Your task to perform on an android device: uninstall "Skype" Image 0: 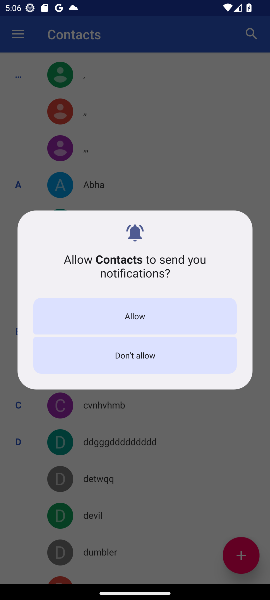
Step 0: press home button
Your task to perform on an android device: uninstall "Skype" Image 1: 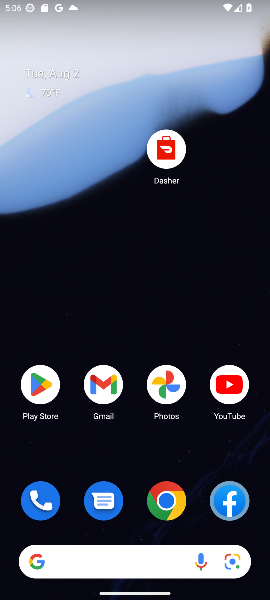
Step 1: click (31, 390)
Your task to perform on an android device: uninstall "Skype" Image 2: 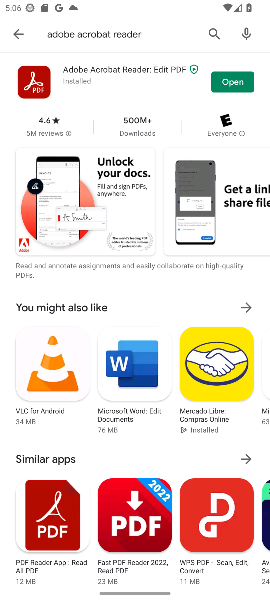
Step 2: click (208, 25)
Your task to perform on an android device: uninstall "Skype" Image 3: 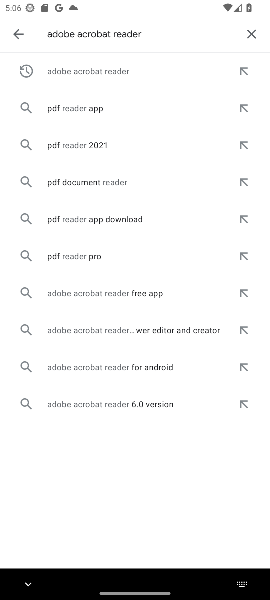
Step 3: click (246, 32)
Your task to perform on an android device: uninstall "Skype" Image 4: 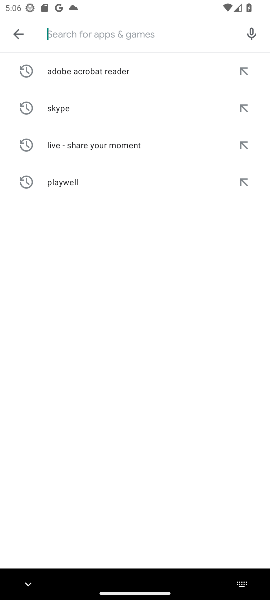
Step 4: type "Skype"
Your task to perform on an android device: uninstall "Skype" Image 5: 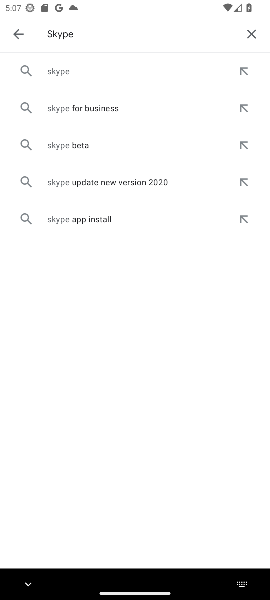
Step 5: click (53, 76)
Your task to perform on an android device: uninstall "Skype" Image 6: 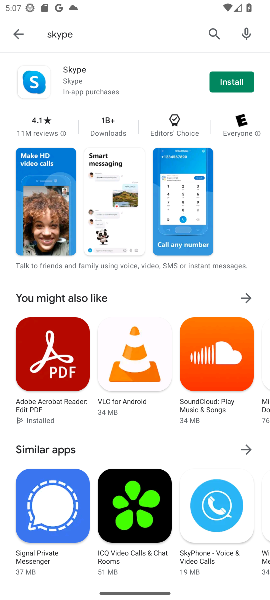
Step 6: task complete